Your task to perform on an android device: Open ESPN.com Image 0: 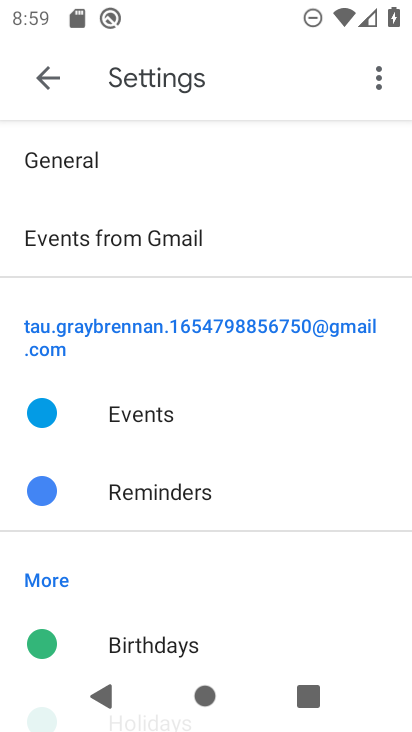
Step 0: press home button
Your task to perform on an android device: Open ESPN.com Image 1: 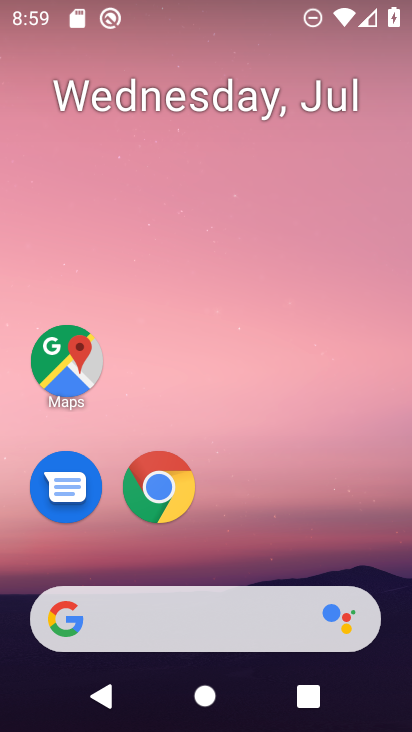
Step 1: drag from (319, 539) to (379, 116)
Your task to perform on an android device: Open ESPN.com Image 2: 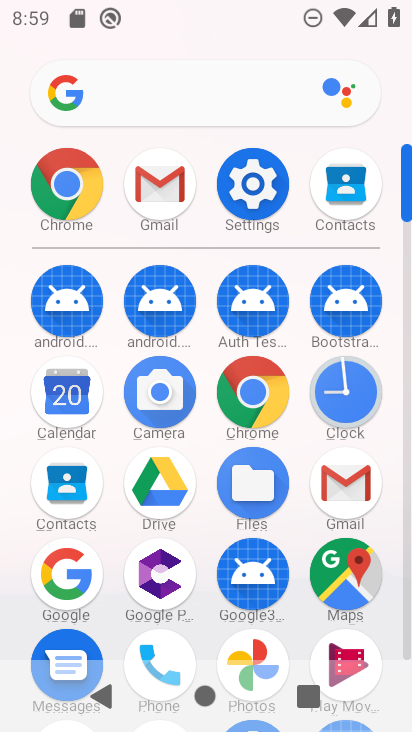
Step 2: click (271, 387)
Your task to perform on an android device: Open ESPN.com Image 3: 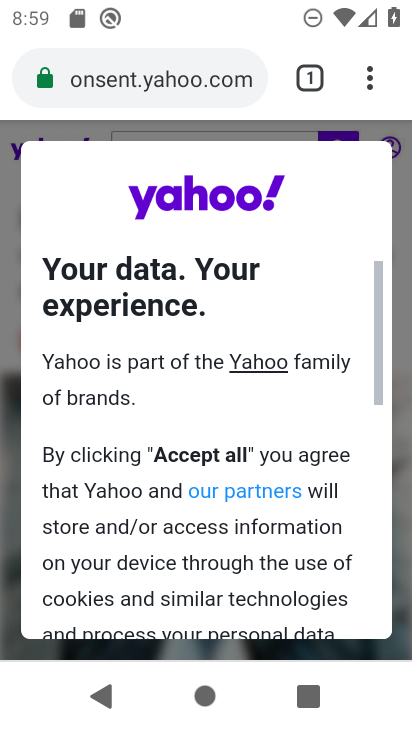
Step 3: click (205, 90)
Your task to perform on an android device: Open ESPN.com Image 4: 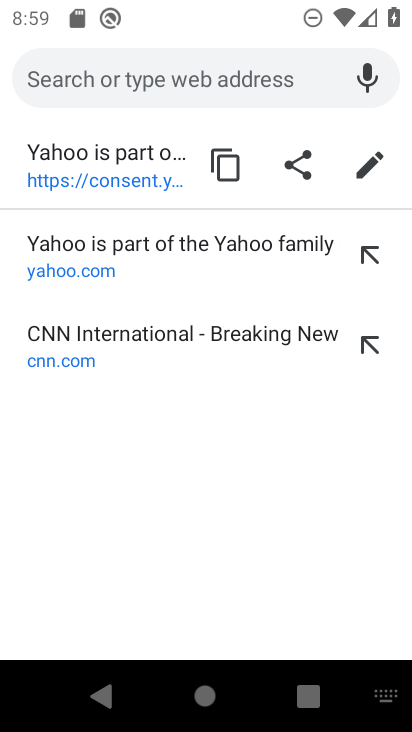
Step 4: type "espn.com"
Your task to perform on an android device: Open ESPN.com Image 5: 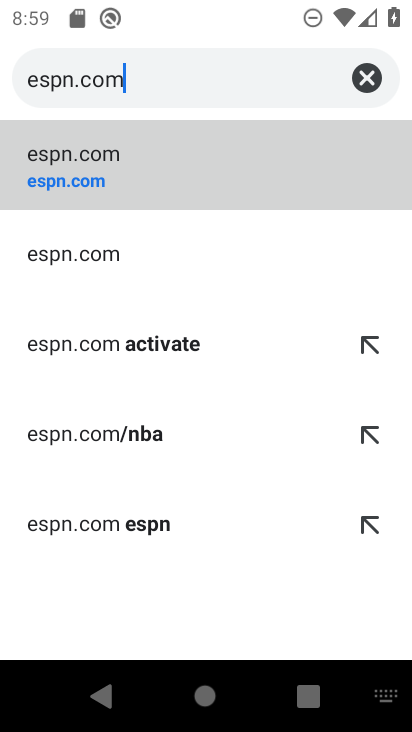
Step 5: click (283, 175)
Your task to perform on an android device: Open ESPN.com Image 6: 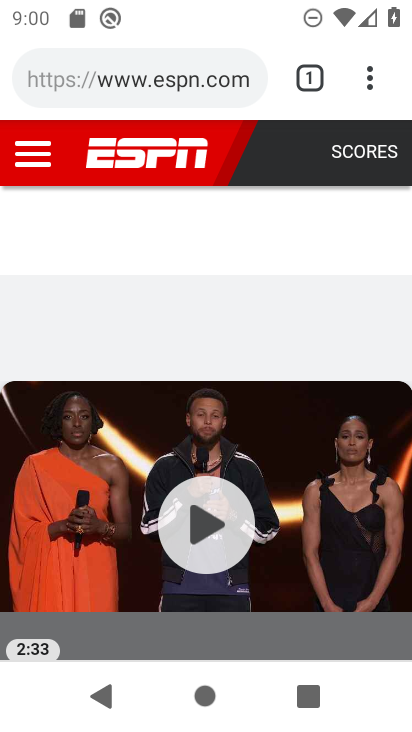
Step 6: task complete